Your task to perform on an android device: Go to Maps Image 0: 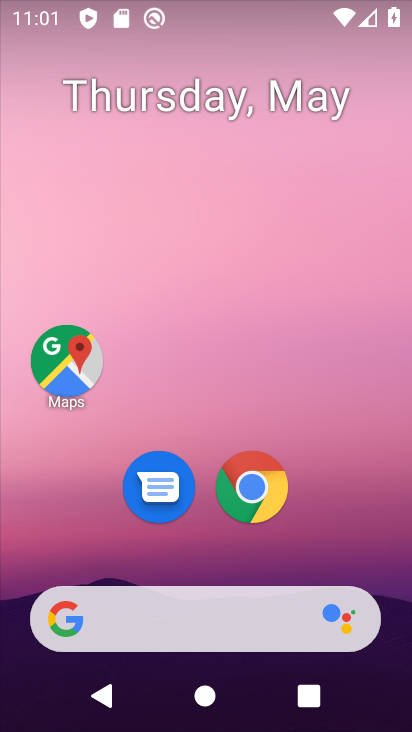
Step 0: drag from (326, 439) to (293, 38)
Your task to perform on an android device: Go to Maps Image 1: 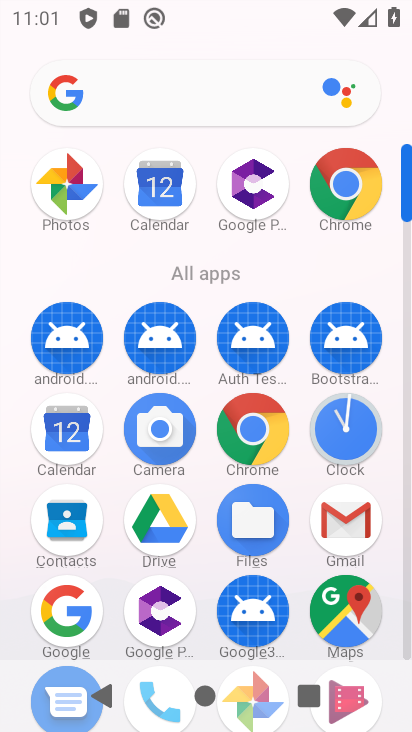
Step 1: click (322, 629)
Your task to perform on an android device: Go to Maps Image 2: 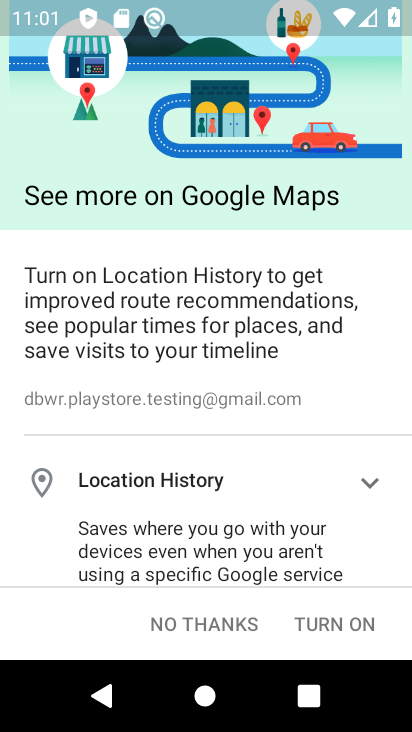
Step 2: click (212, 624)
Your task to perform on an android device: Go to Maps Image 3: 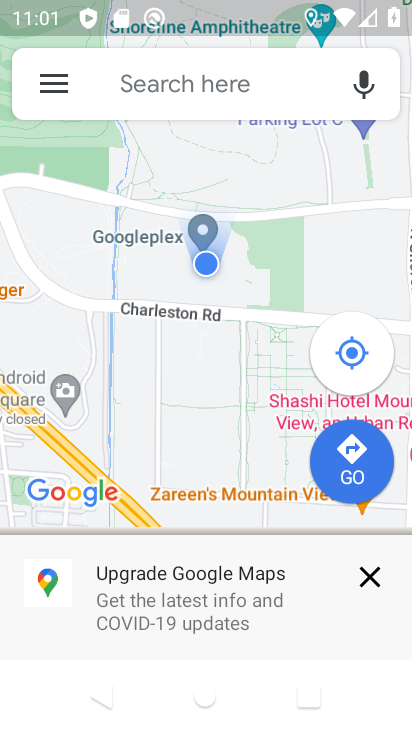
Step 3: task complete